Your task to perform on an android device: Open the phone app and click the voicemail tab. Image 0: 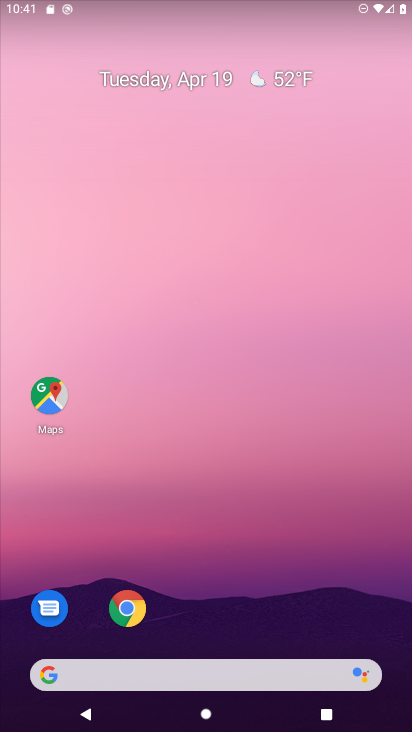
Step 0: drag from (266, 584) to (210, 141)
Your task to perform on an android device: Open the phone app and click the voicemail tab. Image 1: 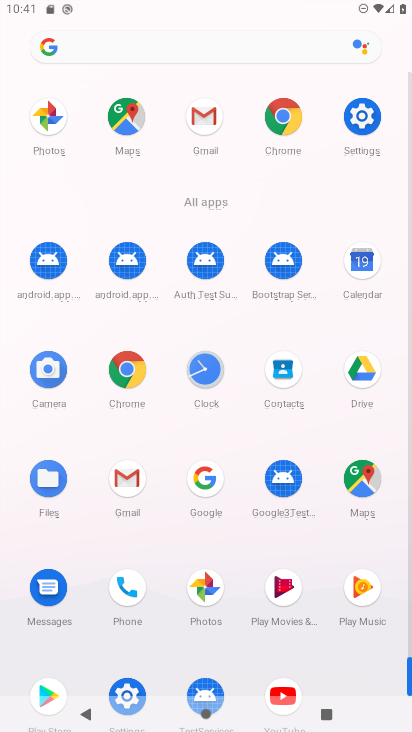
Step 1: click (143, 596)
Your task to perform on an android device: Open the phone app and click the voicemail tab. Image 2: 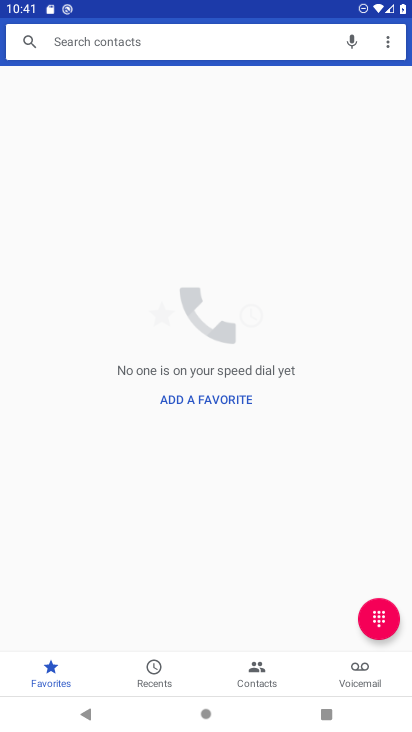
Step 2: click (363, 667)
Your task to perform on an android device: Open the phone app and click the voicemail tab. Image 3: 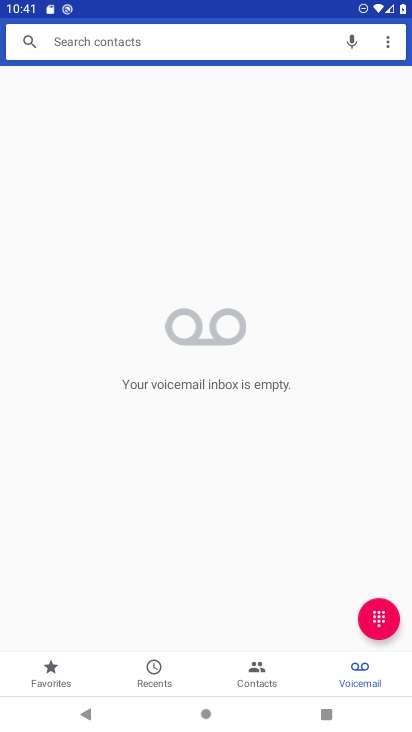
Step 3: task complete